Your task to perform on an android device: Go to Yahoo.com Image 0: 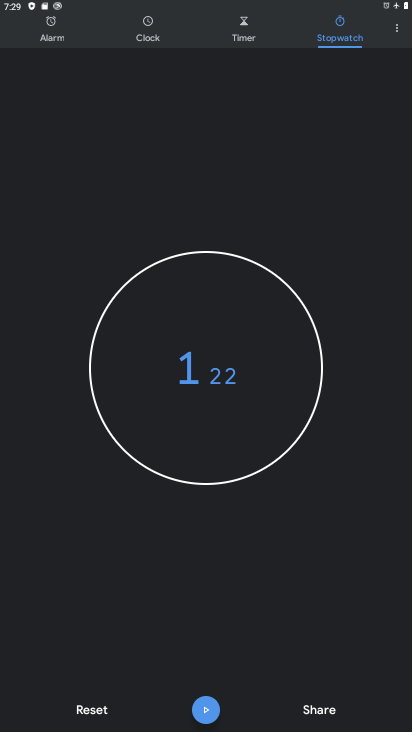
Step 0: press home button
Your task to perform on an android device: Go to Yahoo.com Image 1: 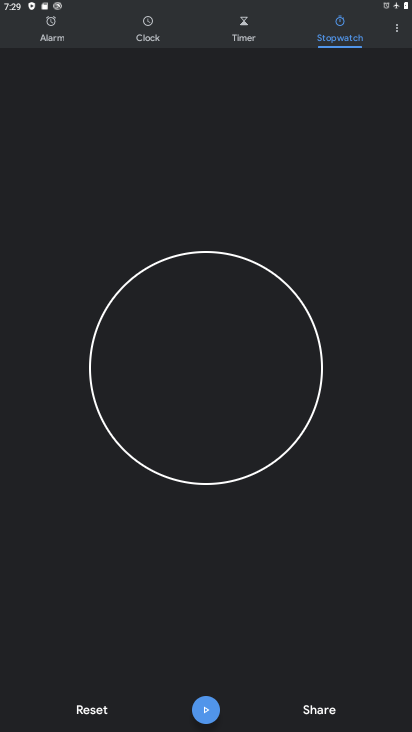
Step 1: drag from (369, 684) to (218, 65)
Your task to perform on an android device: Go to Yahoo.com Image 2: 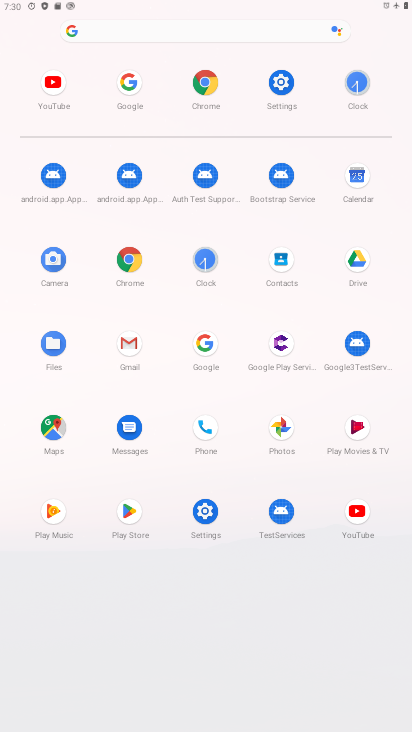
Step 2: click (211, 347)
Your task to perform on an android device: Go to Yahoo.com Image 3: 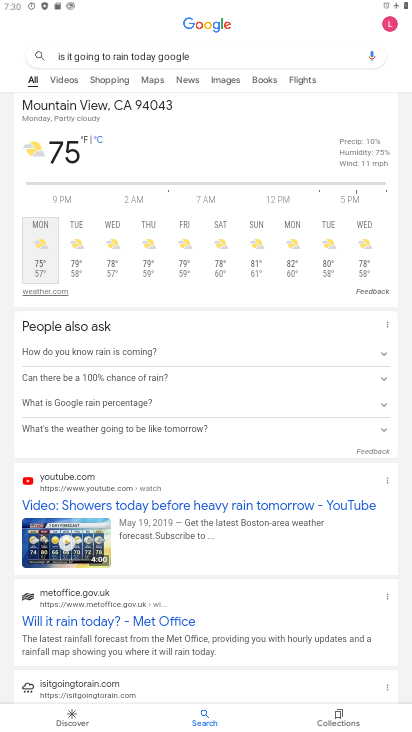
Step 3: press back button
Your task to perform on an android device: Go to Yahoo.com Image 4: 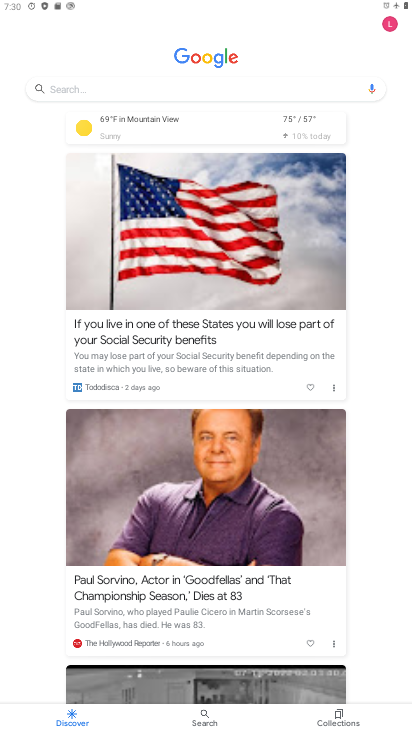
Step 4: click (79, 88)
Your task to perform on an android device: Go to Yahoo.com Image 5: 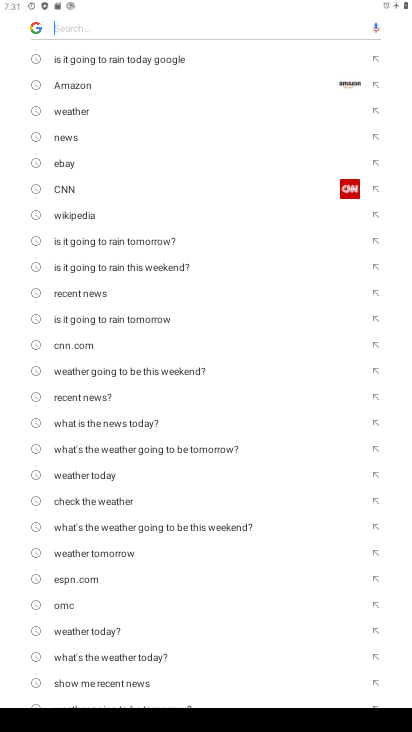
Step 5: type " Yahoo.com"
Your task to perform on an android device: Go to Yahoo.com Image 6: 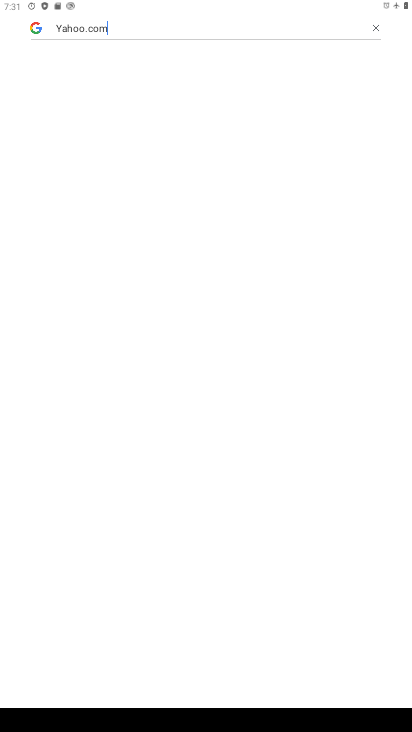
Step 6: task complete